Your task to perform on an android device: What's the price of the Vizio TV? Image 0: 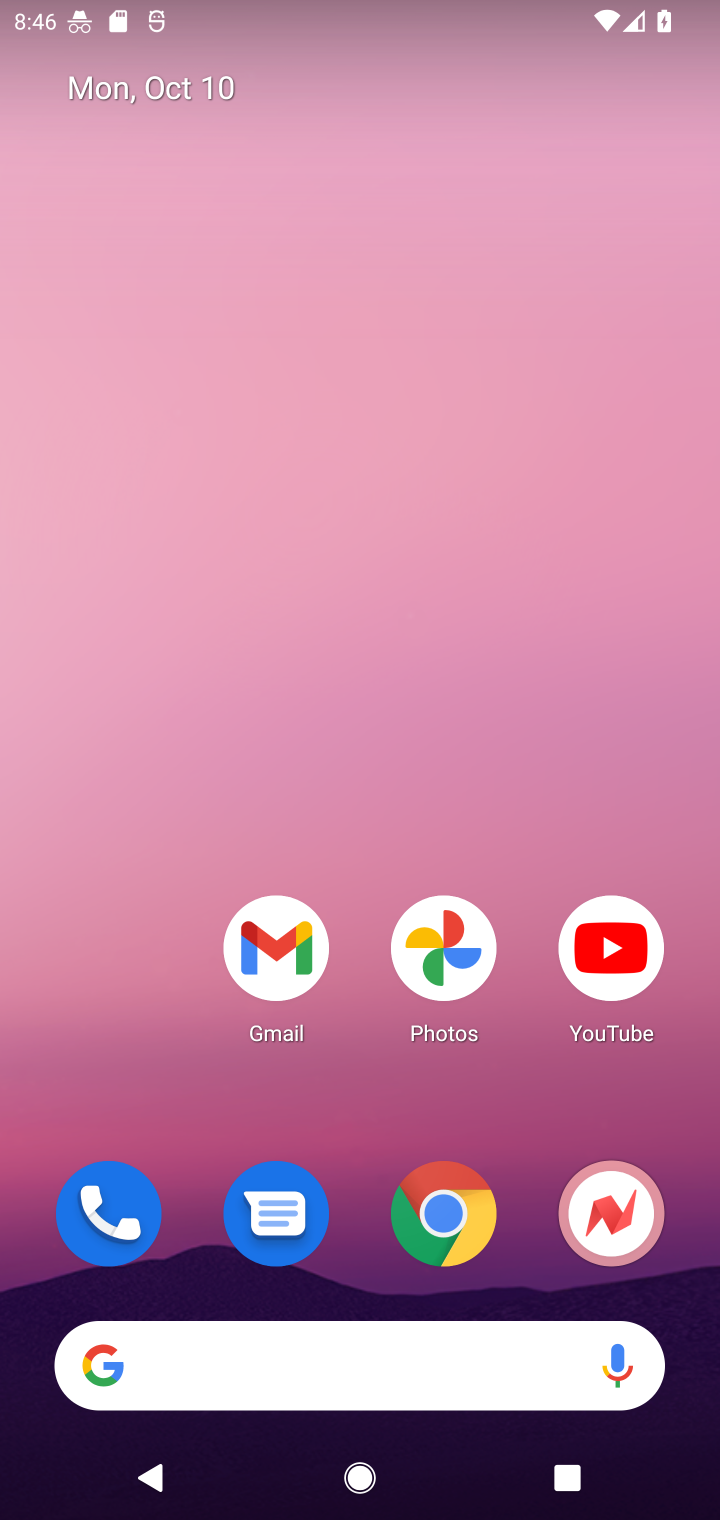
Step 0: click (379, 1384)
Your task to perform on an android device: What's the price of the Vizio TV? Image 1: 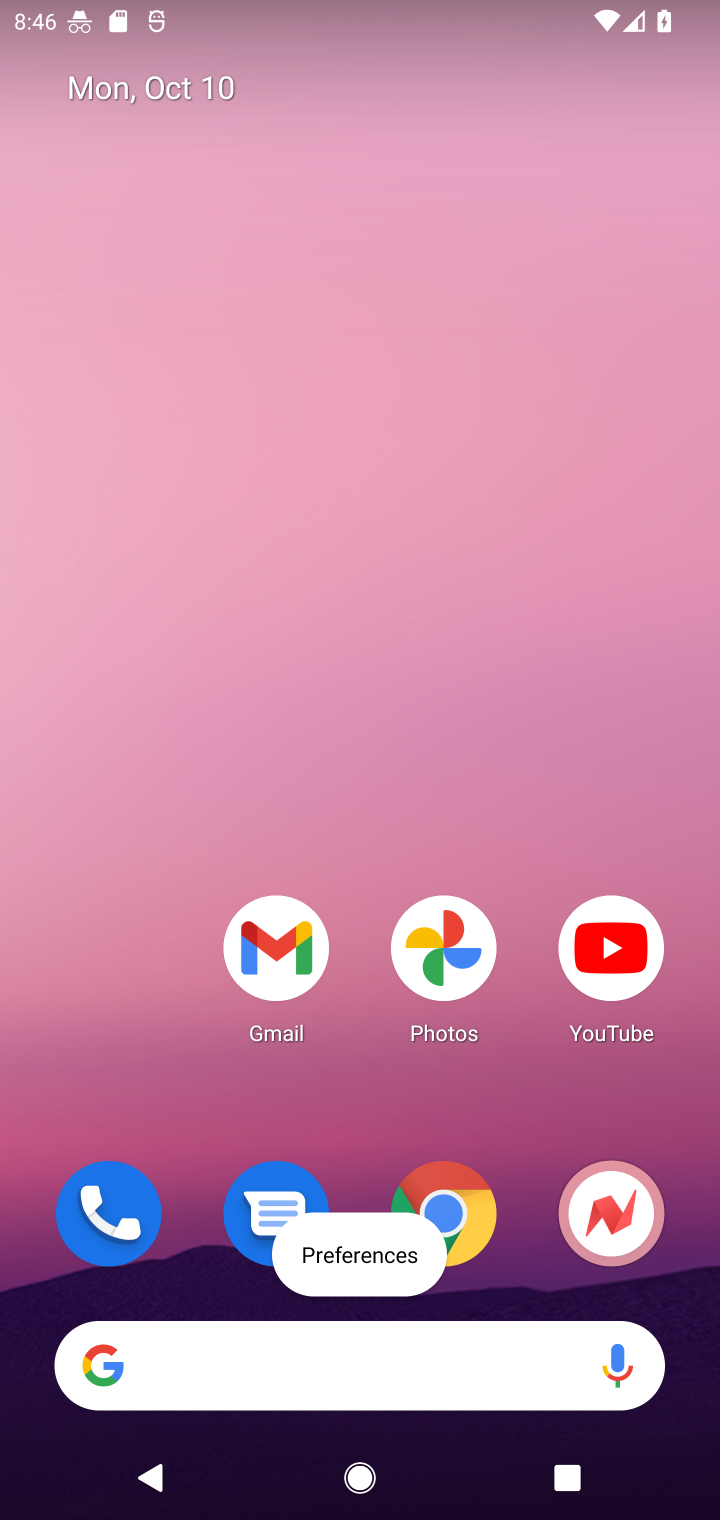
Step 1: click (374, 1388)
Your task to perform on an android device: What's the price of the Vizio TV? Image 2: 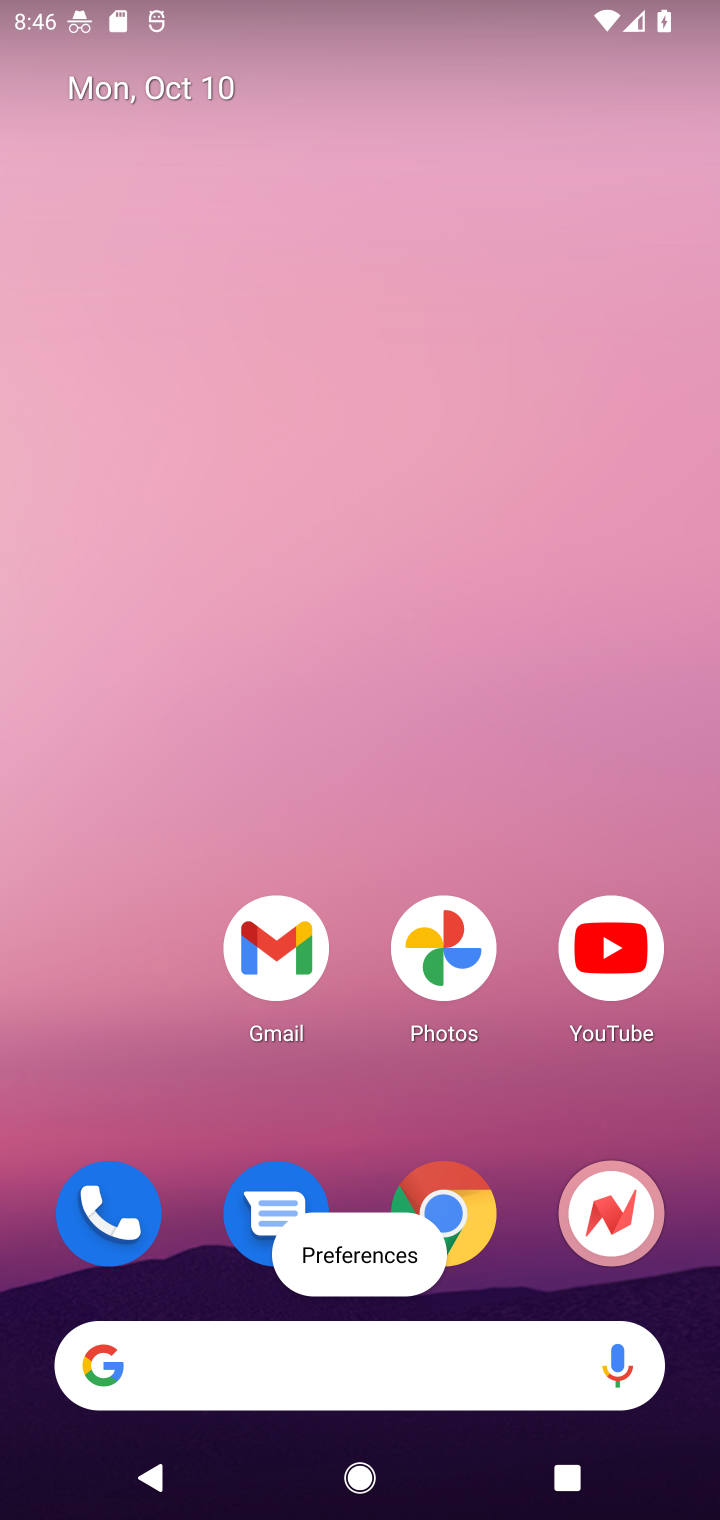
Step 2: click (321, 1387)
Your task to perform on an android device: What's the price of the Vizio TV? Image 3: 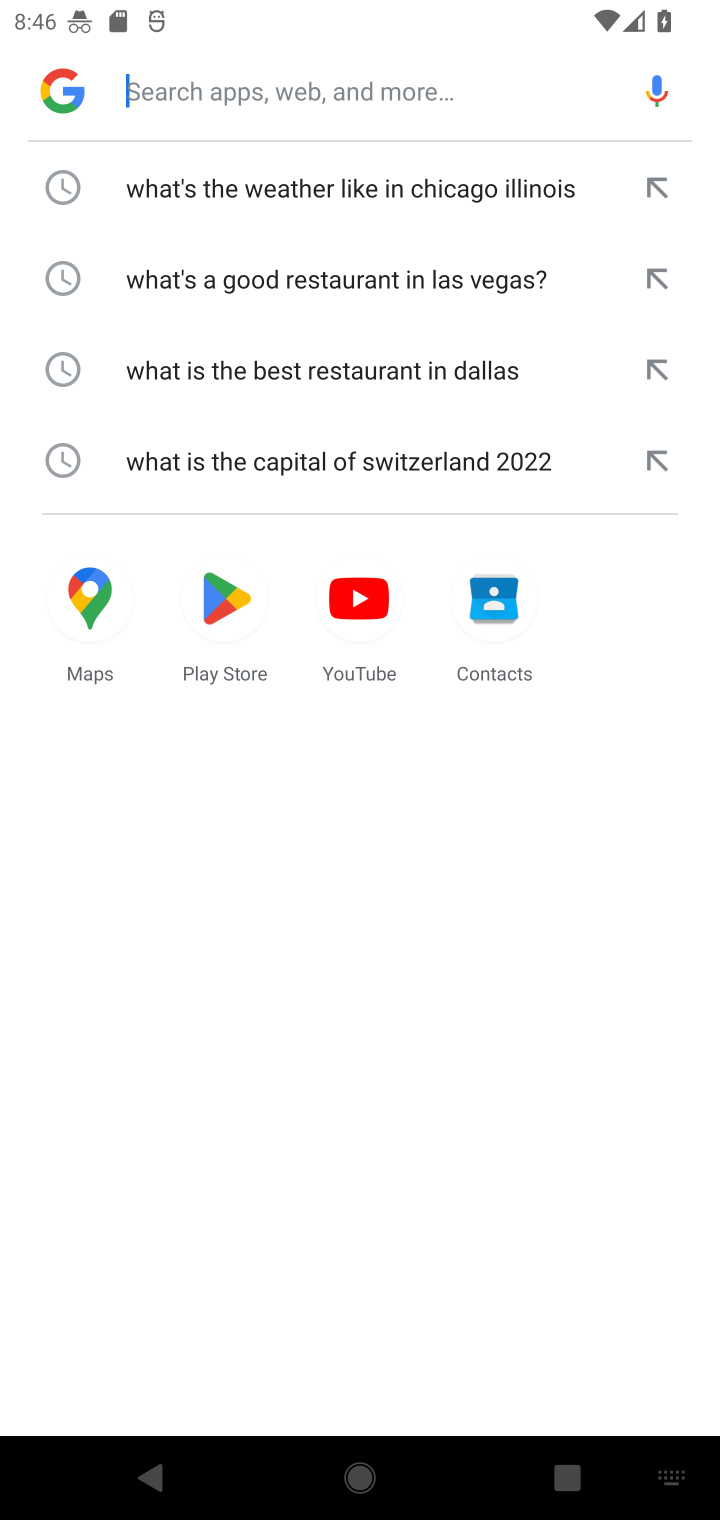
Step 3: click (292, 98)
Your task to perform on an android device: What's the price of the Vizio TV? Image 4: 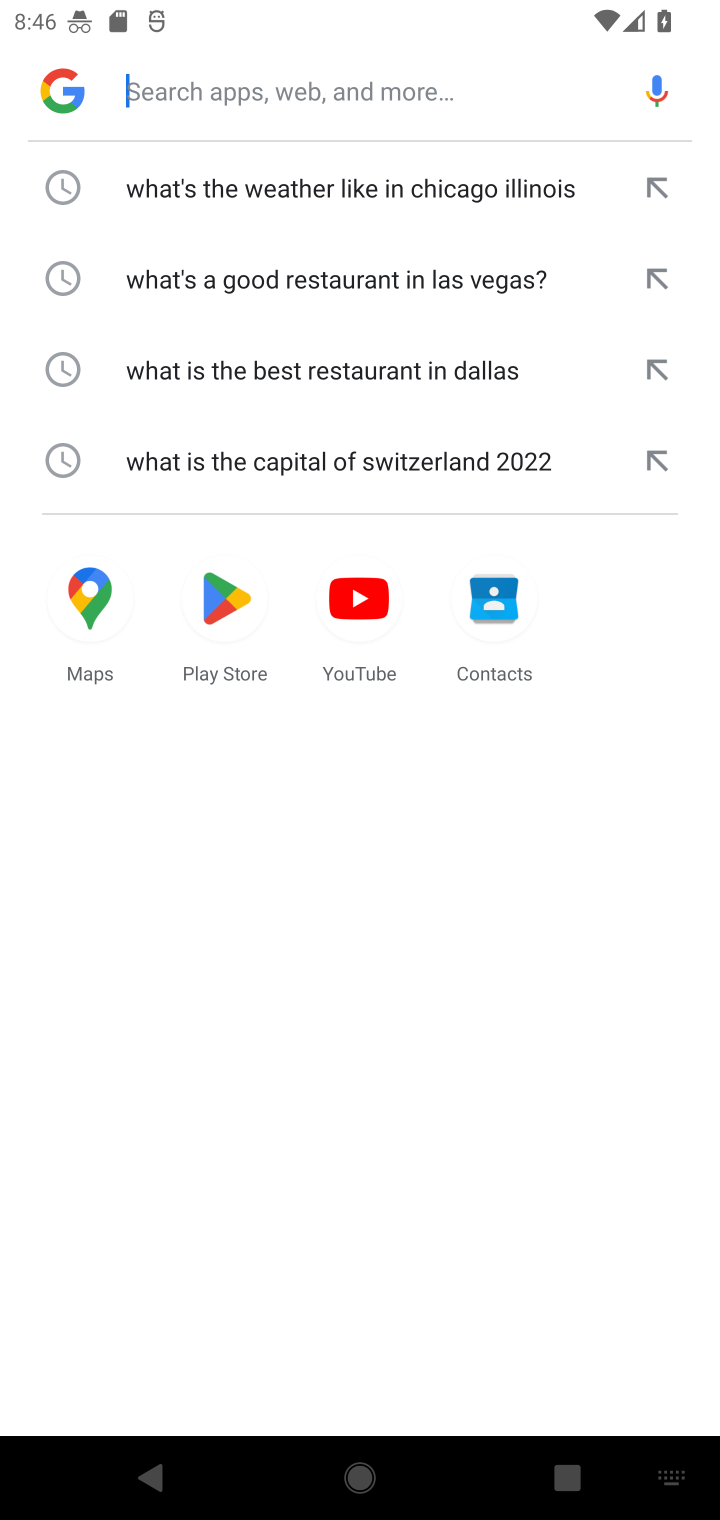
Step 4: type "What's the price of the Vizio TV?"
Your task to perform on an android device: What's the price of the Vizio TV? Image 5: 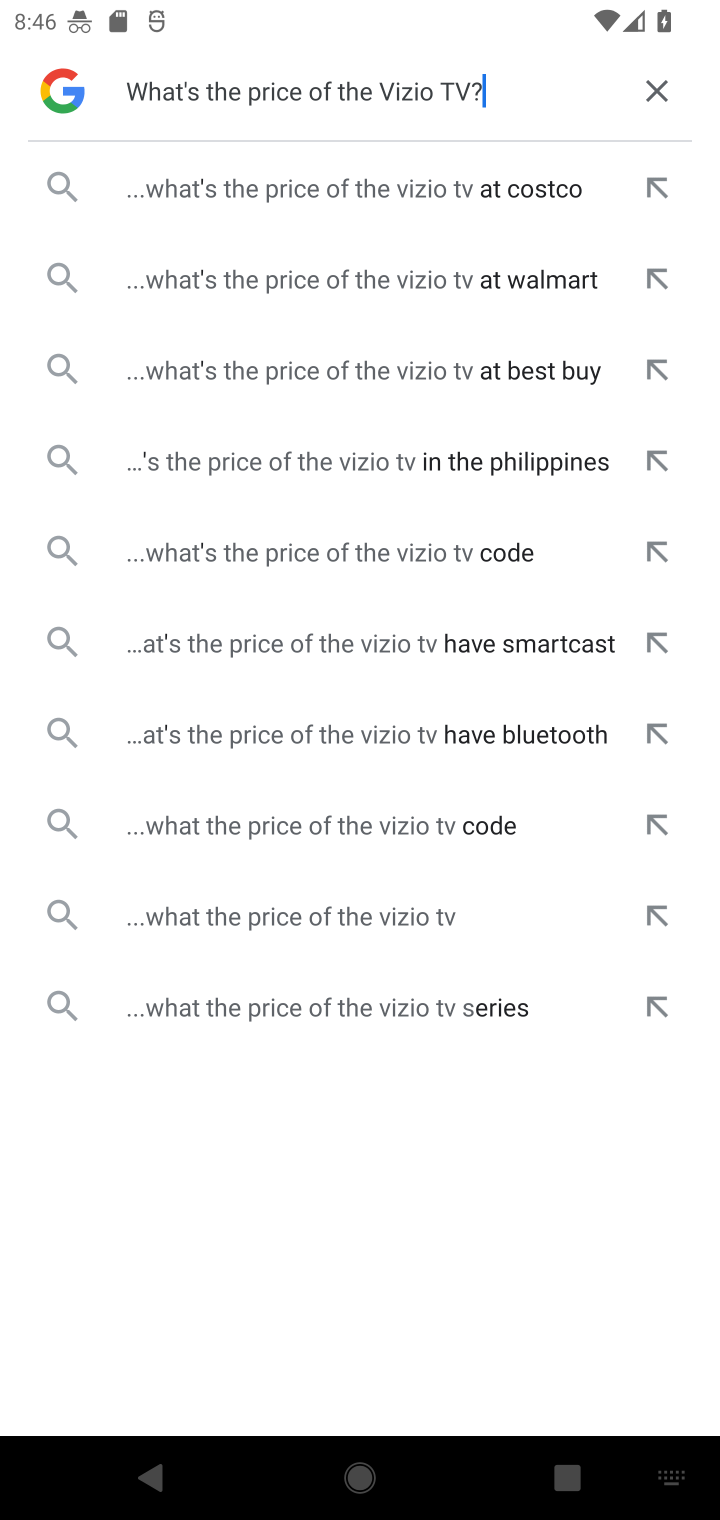
Step 5: click (330, 831)
Your task to perform on an android device: What's the price of the Vizio TV? Image 6: 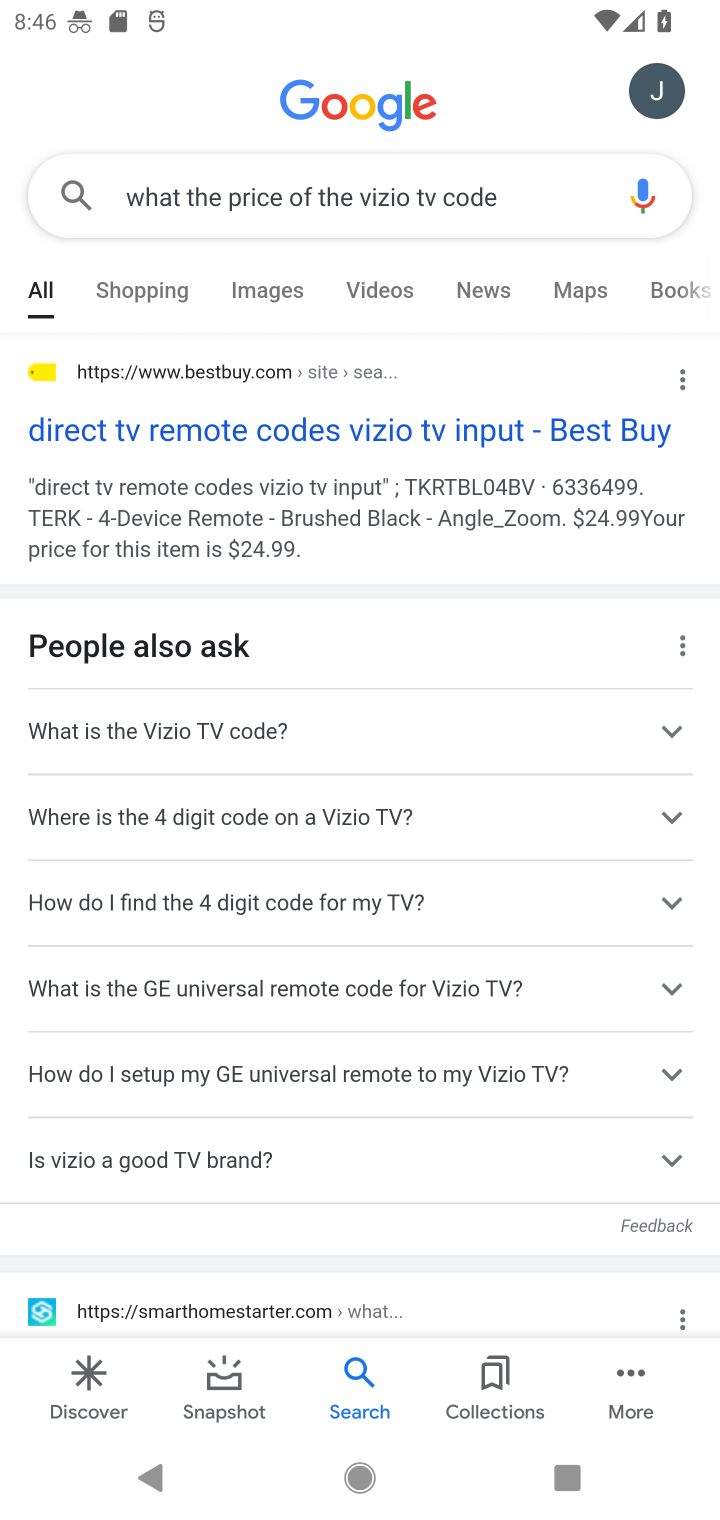
Step 6: task complete